Your task to perform on an android device: What's the weather going to be this weekend? Image 0: 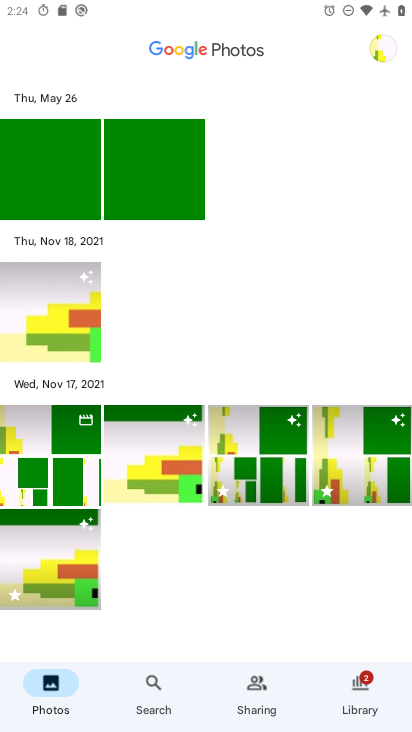
Step 0: press home button
Your task to perform on an android device: What's the weather going to be this weekend? Image 1: 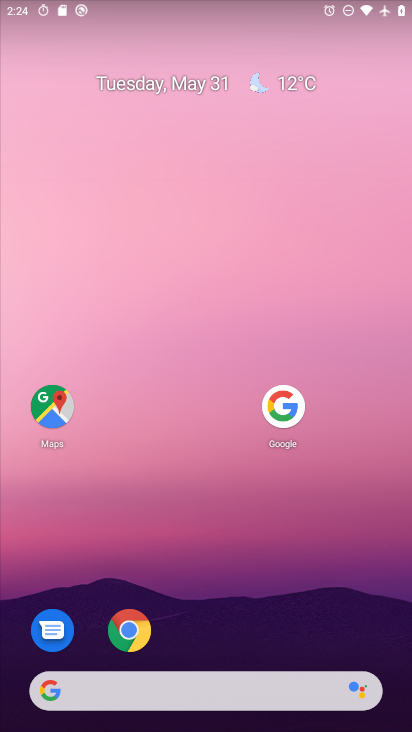
Step 1: click (276, 81)
Your task to perform on an android device: What's the weather going to be this weekend? Image 2: 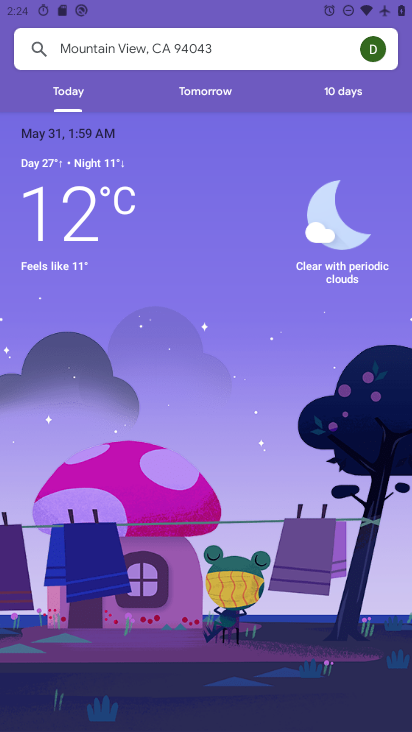
Step 2: click (350, 89)
Your task to perform on an android device: What's the weather going to be this weekend? Image 3: 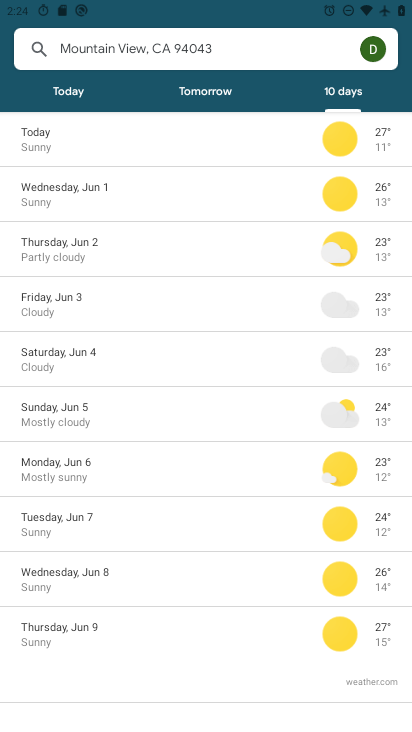
Step 3: click (100, 364)
Your task to perform on an android device: What's the weather going to be this weekend? Image 4: 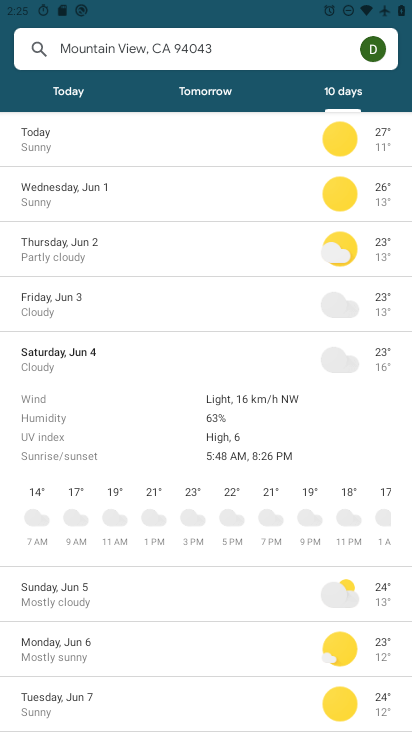
Step 4: task complete